Your task to perform on an android device: open app "Life360: Find Family & Friends" (install if not already installed) Image 0: 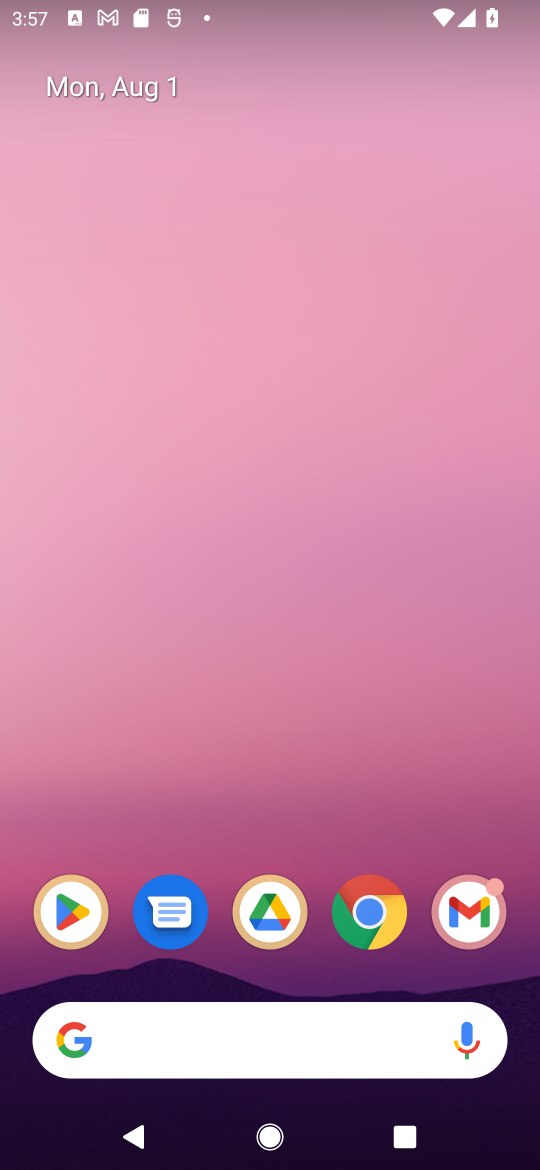
Step 0: click (71, 924)
Your task to perform on an android device: open app "Life360: Find Family & Friends" (install if not already installed) Image 1: 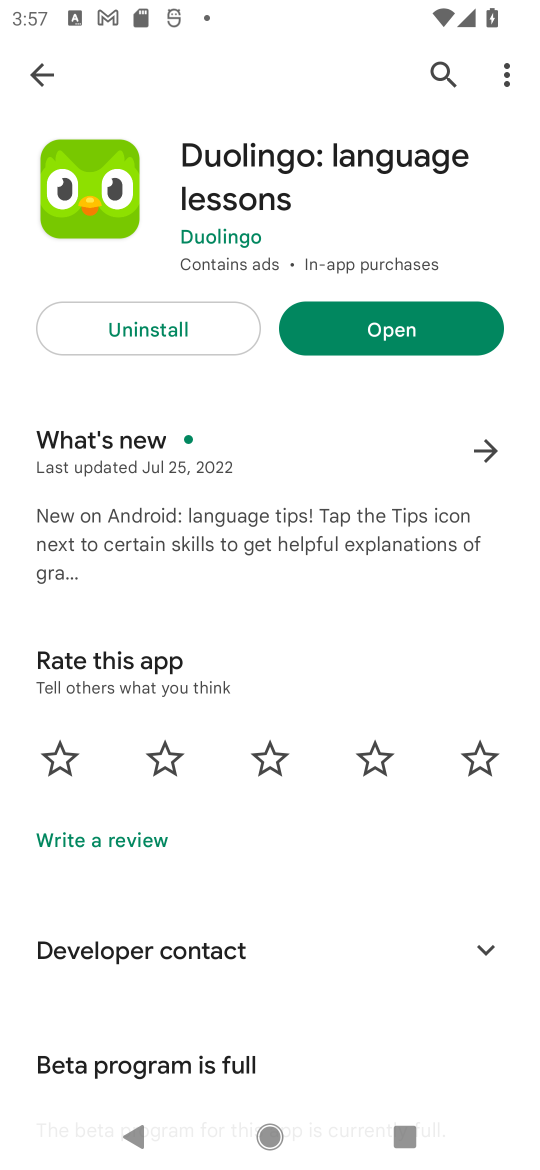
Step 1: click (422, 73)
Your task to perform on an android device: open app "Life360: Find Family & Friends" (install if not already installed) Image 2: 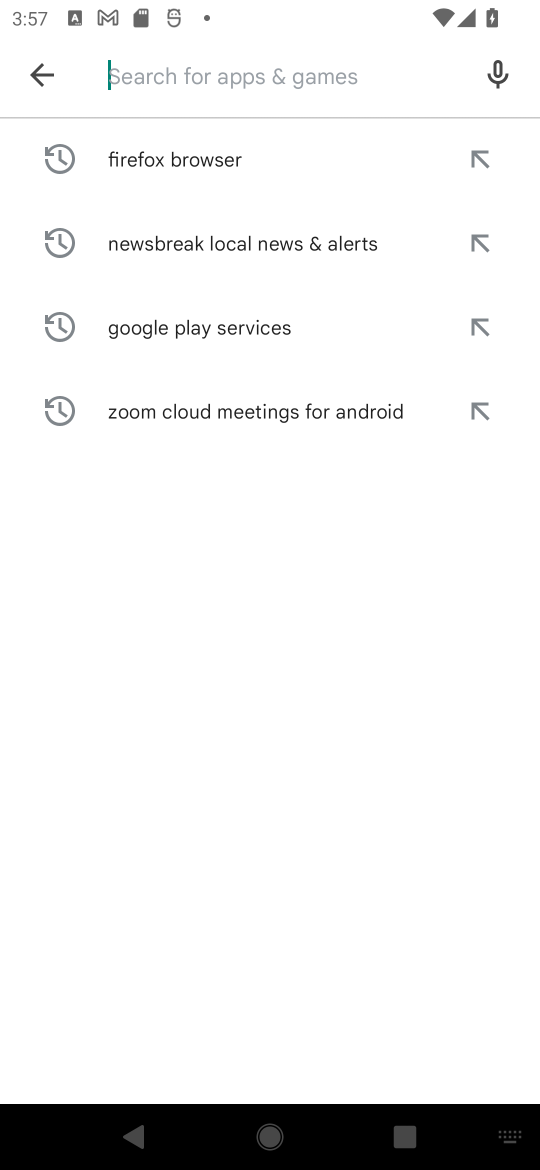
Step 2: type "Life360: Find Family & Friends"
Your task to perform on an android device: open app "Life360: Find Family & Friends" (install if not already installed) Image 3: 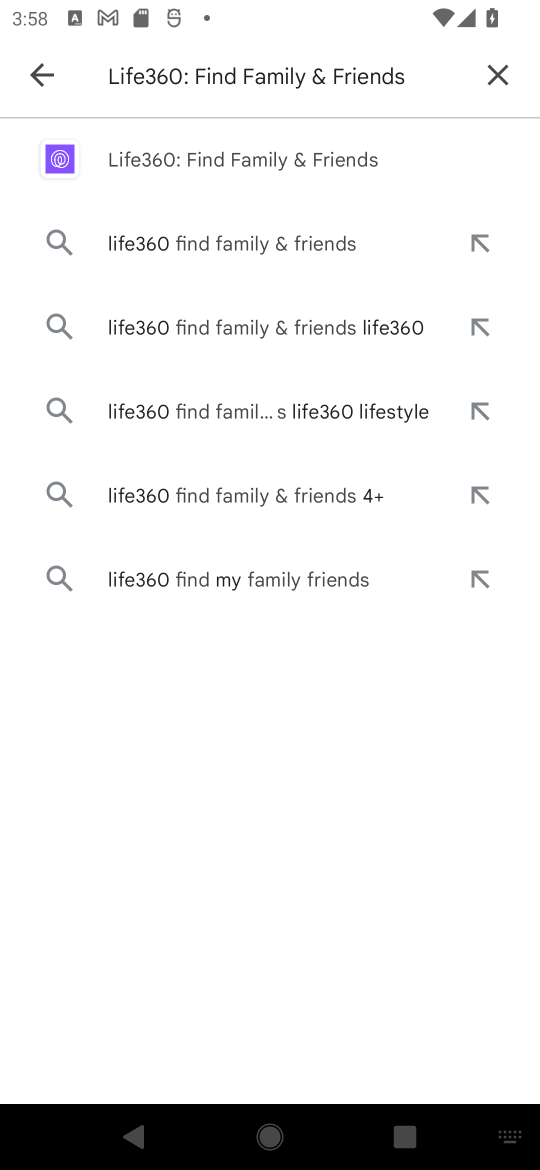
Step 3: click (168, 158)
Your task to perform on an android device: open app "Life360: Find Family & Friends" (install if not already installed) Image 4: 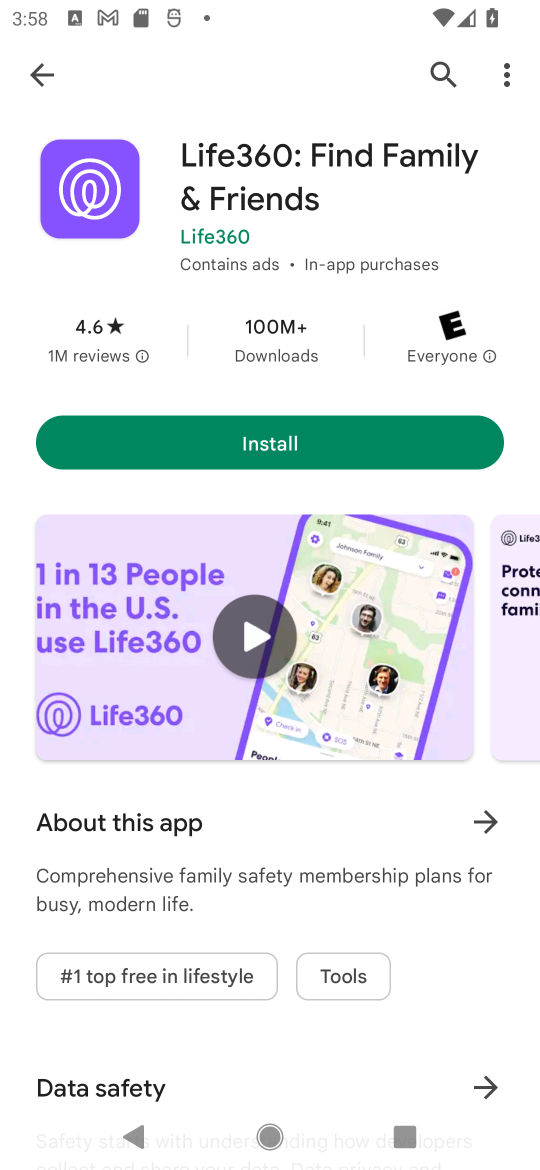
Step 4: click (224, 456)
Your task to perform on an android device: open app "Life360: Find Family & Friends" (install if not already installed) Image 5: 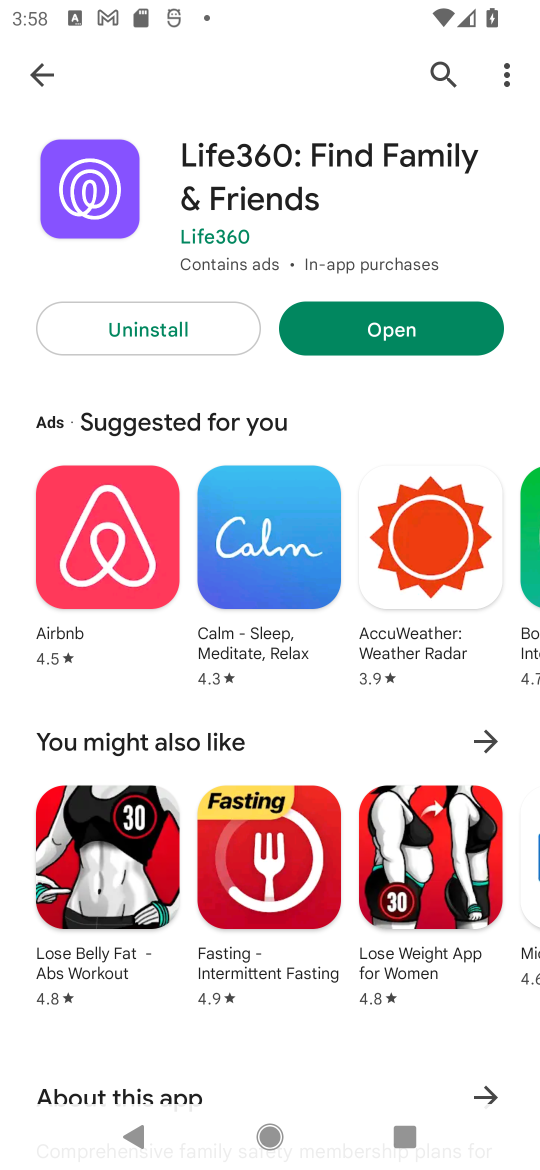
Step 5: click (356, 352)
Your task to perform on an android device: open app "Life360: Find Family & Friends" (install if not already installed) Image 6: 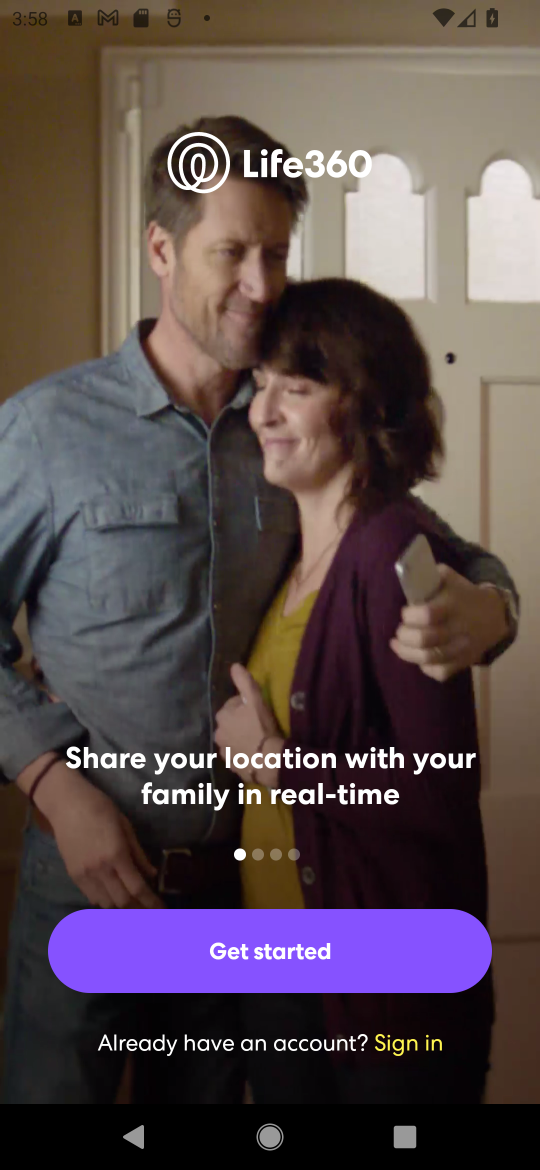
Step 6: task complete